Your task to perform on an android device: Go to Amazon Image 0: 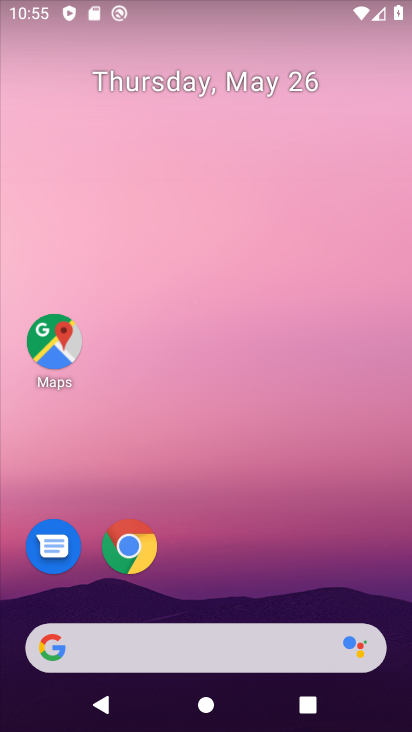
Step 0: drag from (220, 574) to (240, 74)
Your task to perform on an android device: Go to Amazon Image 1: 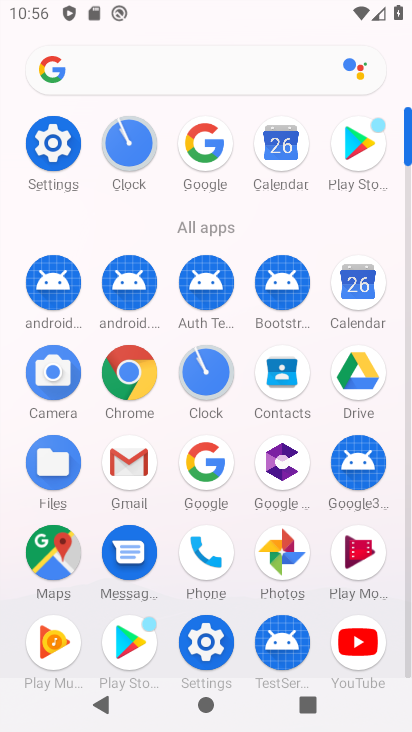
Step 1: click (128, 372)
Your task to perform on an android device: Go to Amazon Image 2: 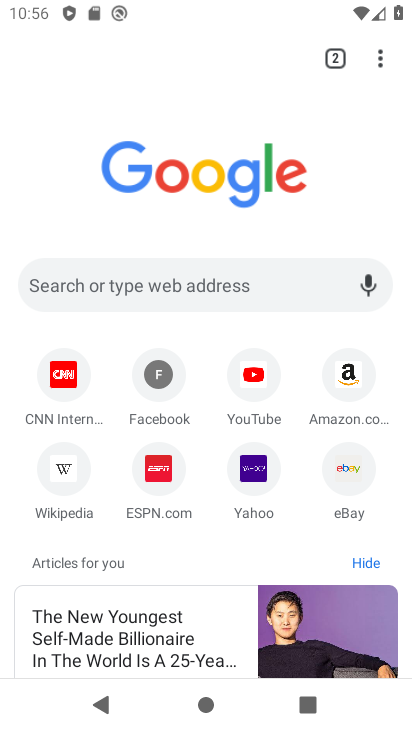
Step 2: click (343, 378)
Your task to perform on an android device: Go to Amazon Image 3: 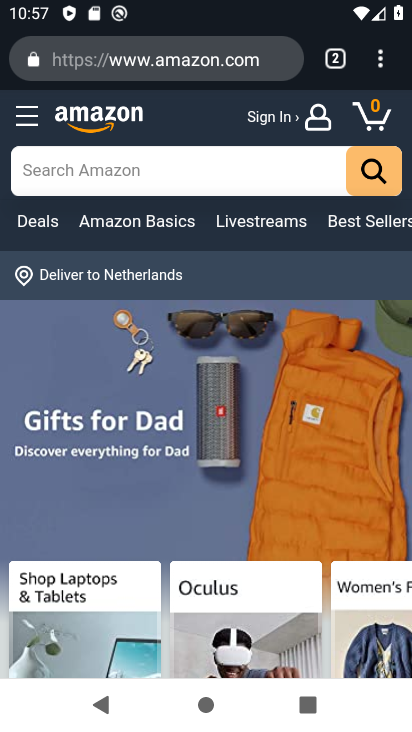
Step 3: task complete